Your task to perform on an android device: Open the calendar and show me this week's events? Image 0: 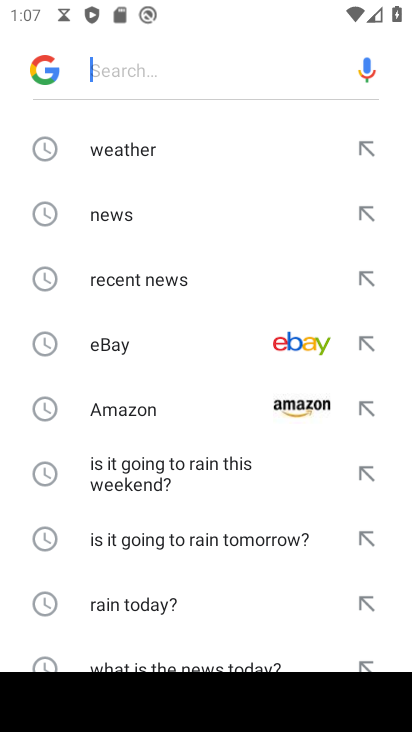
Step 0: press home button
Your task to perform on an android device: Open the calendar and show me this week's events? Image 1: 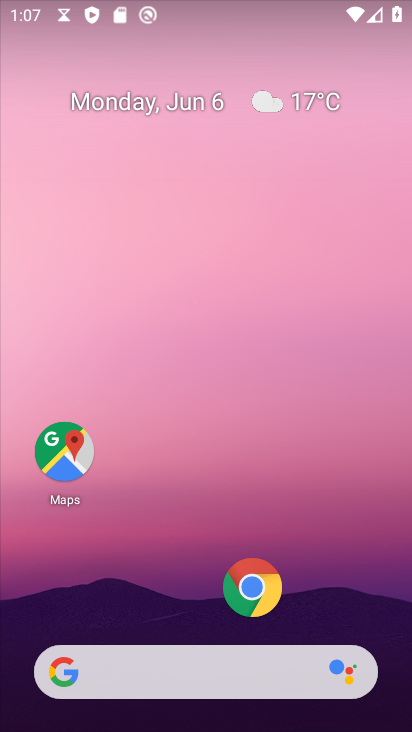
Step 1: drag from (189, 593) to (214, 38)
Your task to perform on an android device: Open the calendar and show me this week's events? Image 2: 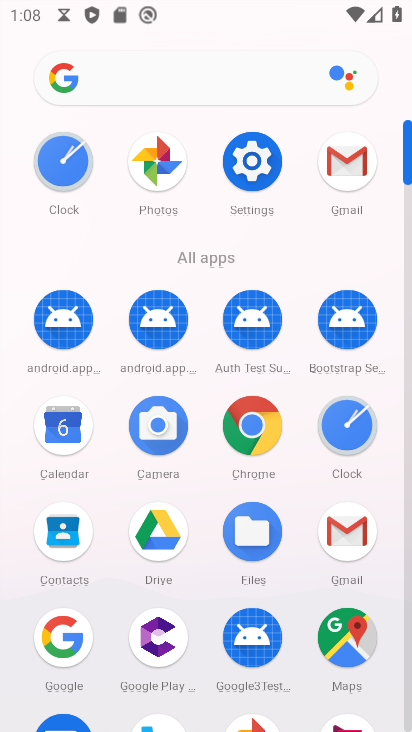
Step 2: click (60, 427)
Your task to perform on an android device: Open the calendar and show me this week's events? Image 3: 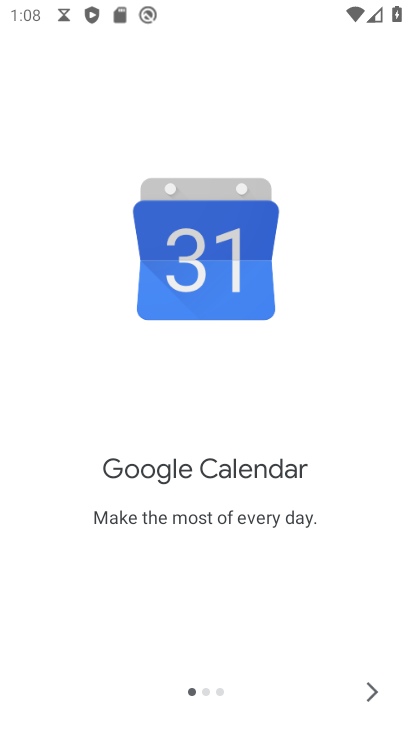
Step 3: click (355, 673)
Your task to perform on an android device: Open the calendar and show me this week's events? Image 4: 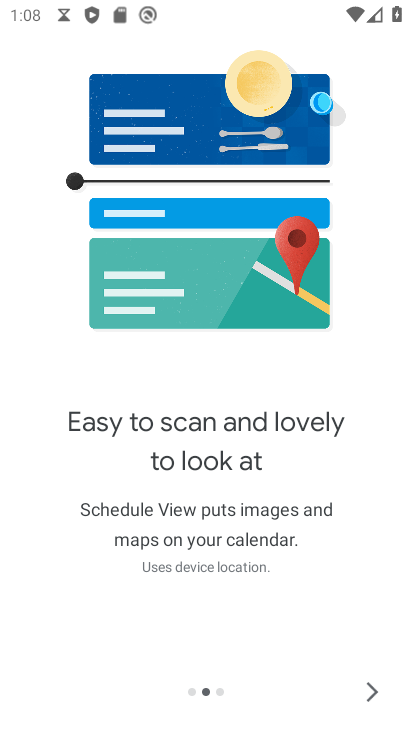
Step 4: click (365, 694)
Your task to perform on an android device: Open the calendar and show me this week's events? Image 5: 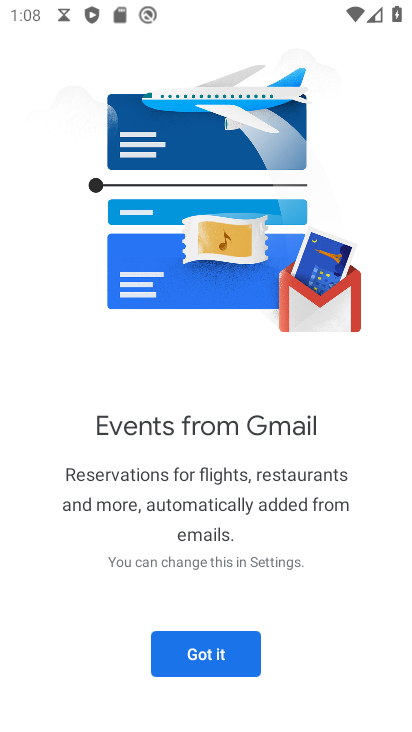
Step 5: click (202, 670)
Your task to perform on an android device: Open the calendar and show me this week's events? Image 6: 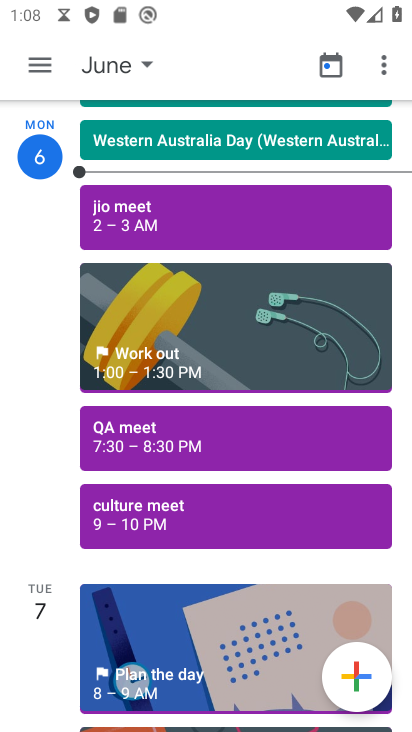
Step 6: click (33, 65)
Your task to perform on an android device: Open the calendar and show me this week's events? Image 7: 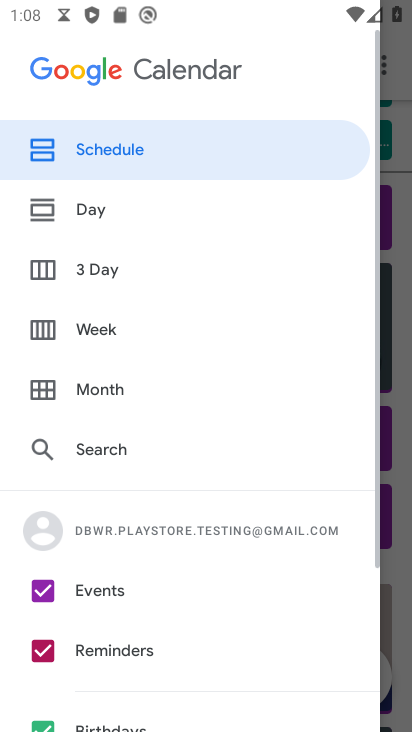
Step 7: click (114, 328)
Your task to perform on an android device: Open the calendar and show me this week's events? Image 8: 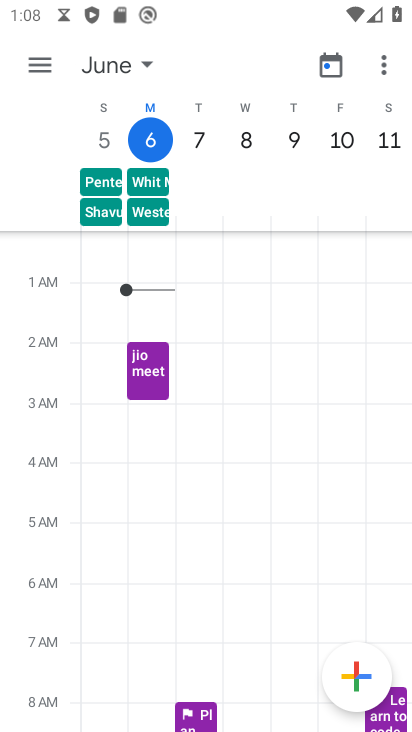
Step 8: click (34, 66)
Your task to perform on an android device: Open the calendar and show me this week's events? Image 9: 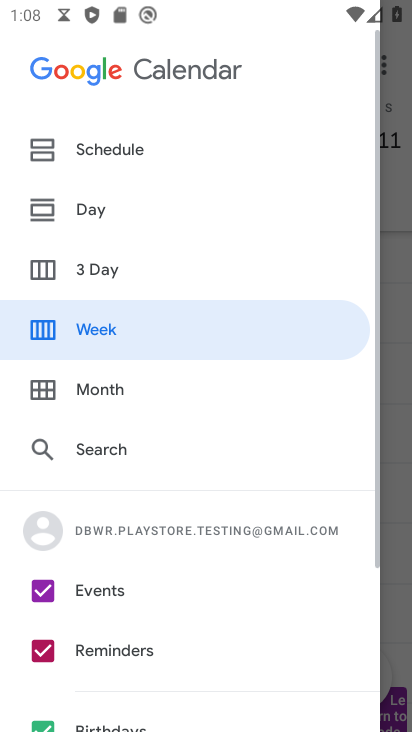
Step 9: drag from (112, 474) to (171, 269)
Your task to perform on an android device: Open the calendar and show me this week's events? Image 10: 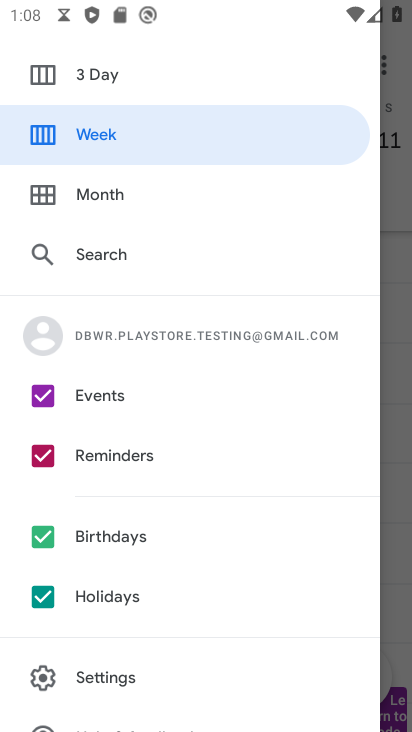
Step 10: click (113, 453)
Your task to perform on an android device: Open the calendar and show me this week's events? Image 11: 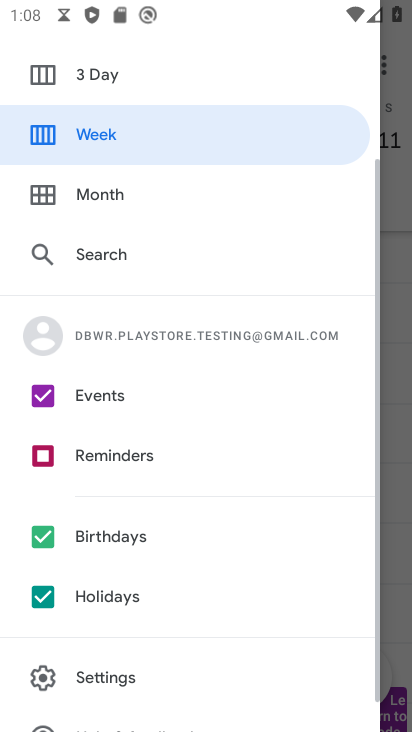
Step 11: click (102, 546)
Your task to perform on an android device: Open the calendar and show me this week's events? Image 12: 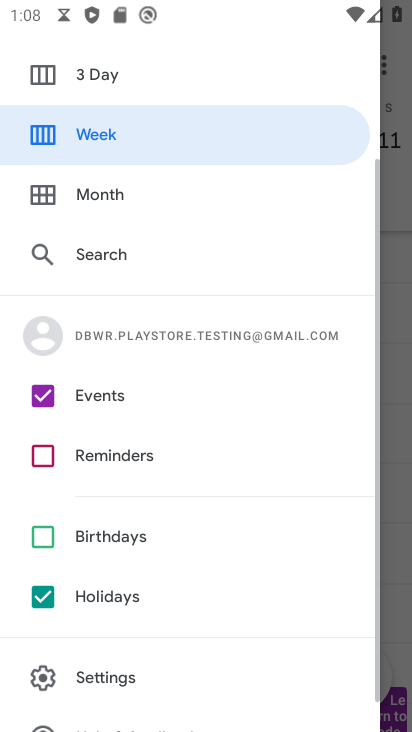
Step 12: click (99, 594)
Your task to perform on an android device: Open the calendar and show me this week's events? Image 13: 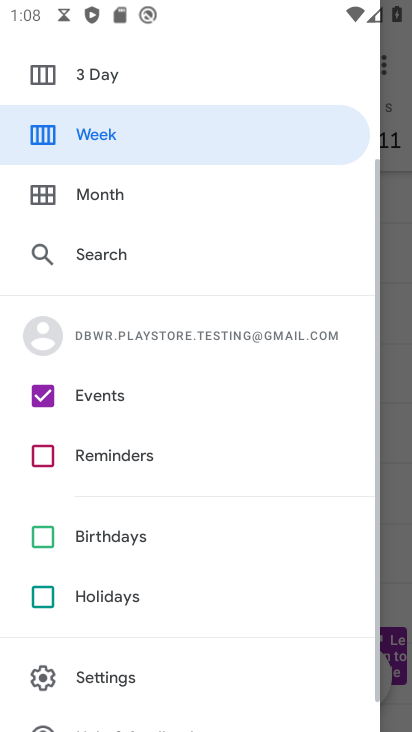
Step 13: click (159, 142)
Your task to perform on an android device: Open the calendar and show me this week's events? Image 14: 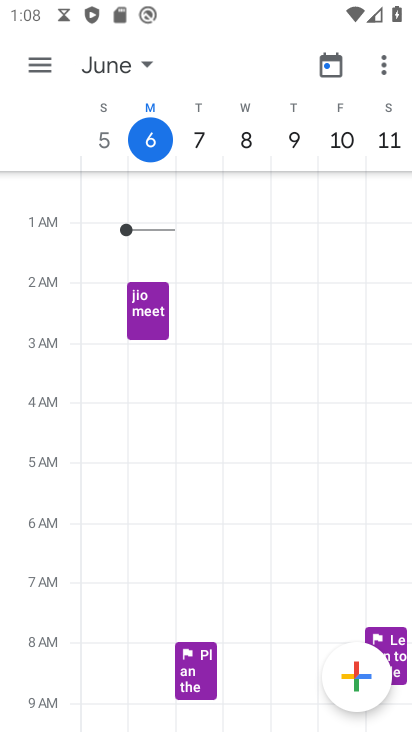
Step 14: task complete